Your task to perform on an android device: Search for Mexican restaurants on Maps Image 0: 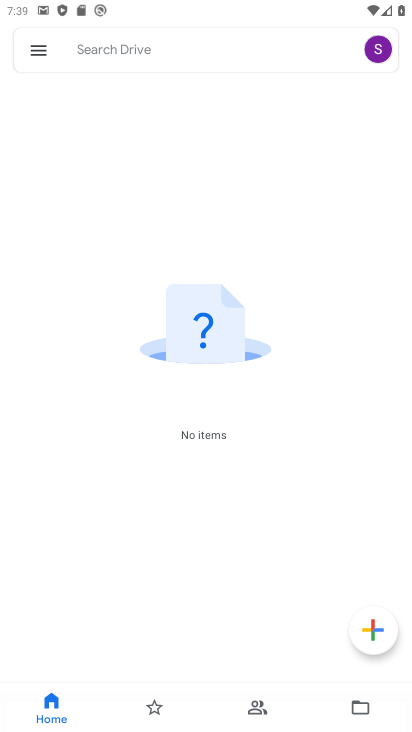
Step 0: press home button
Your task to perform on an android device: Search for Mexican restaurants on Maps Image 1: 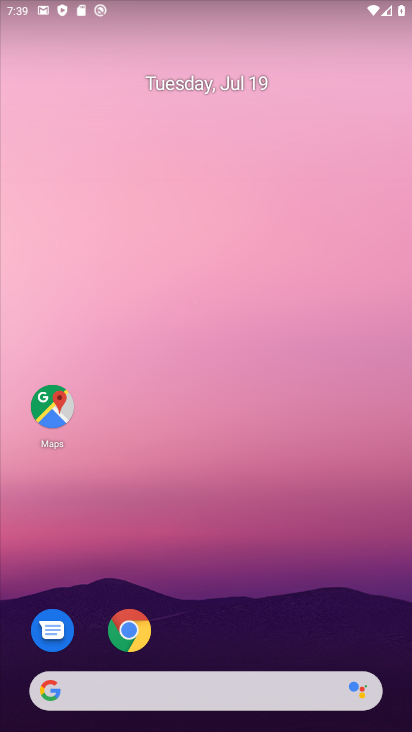
Step 1: drag from (243, 605) to (241, 70)
Your task to perform on an android device: Search for Mexican restaurants on Maps Image 2: 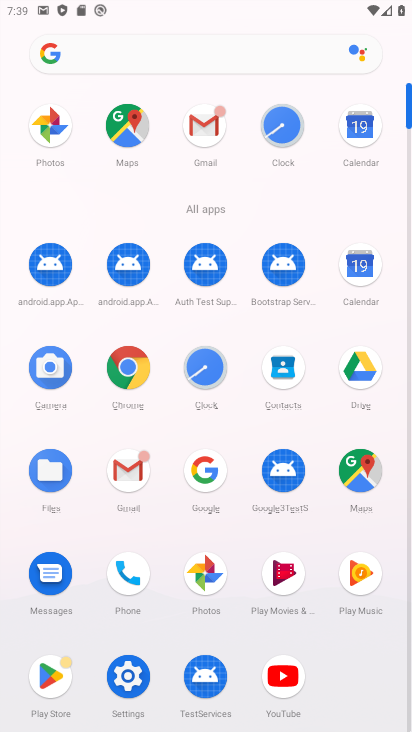
Step 2: click (125, 113)
Your task to perform on an android device: Search for Mexican restaurants on Maps Image 3: 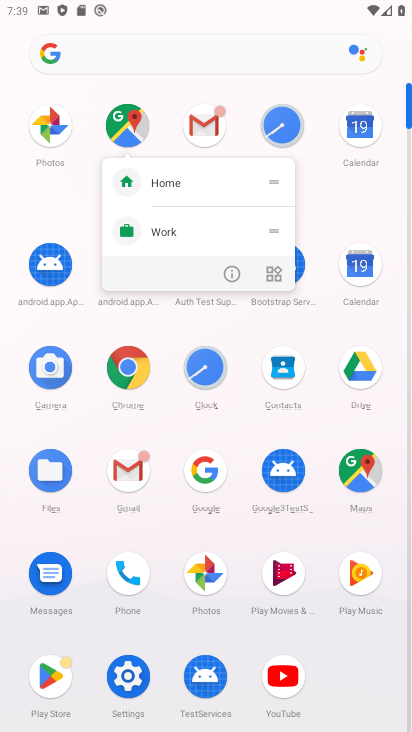
Step 3: click (127, 122)
Your task to perform on an android device: Search for Mexican restaurants on Maps Image 4: 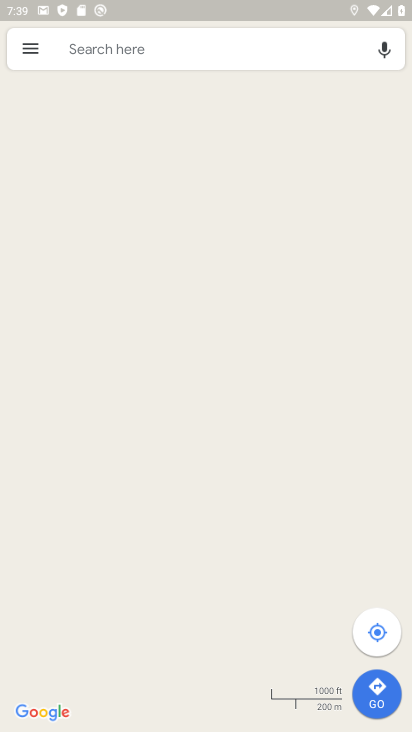
Step 4: click (155, 42)
Your task to perform on an android device: Search for Mexican restaurants on Maps Image 5: 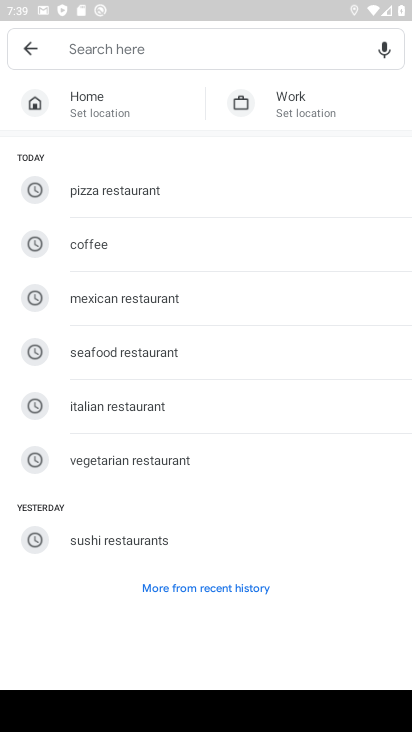
Step 5: type "Mexican restaurants"
Your task to perform on an android device: Search for Mexican restaurants on Maps Image 6: 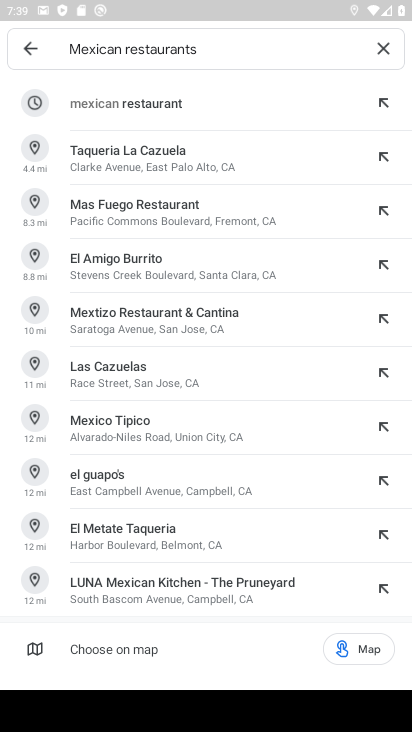
Step 6: press enter
Your task to perform on an android device: Search for Mexican restaurants on Maps Image 7: 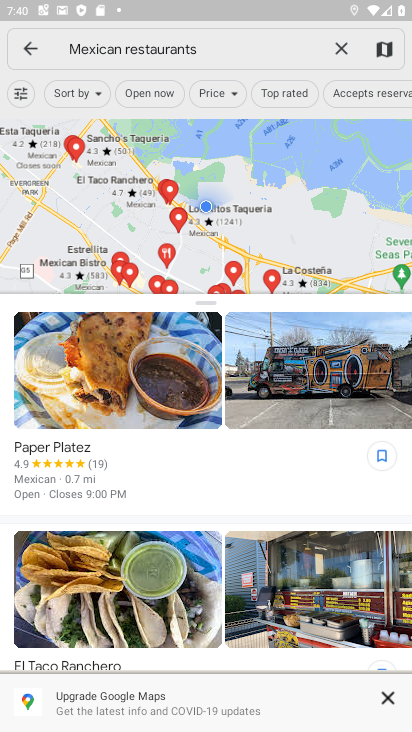
Step 7: task complete